Your task to perform on an android device: turn off improve location accuracy Image 0: 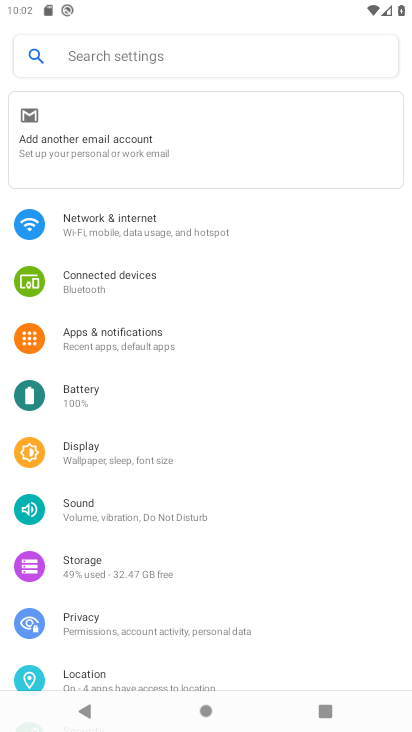
Step 0: click (83, 678)
Your task to perform on an android device: turn off improve location accuracy Image 1: 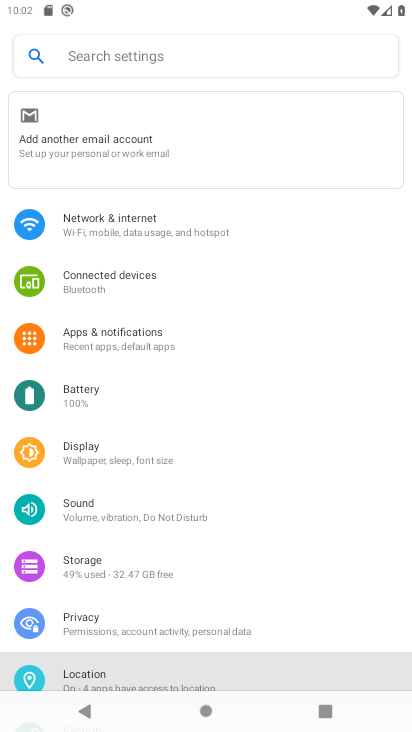
Step 1: drag from (92, 668) to (148, 204)
Your task to perform on an android device: turn off improve location accuracy Image 2: 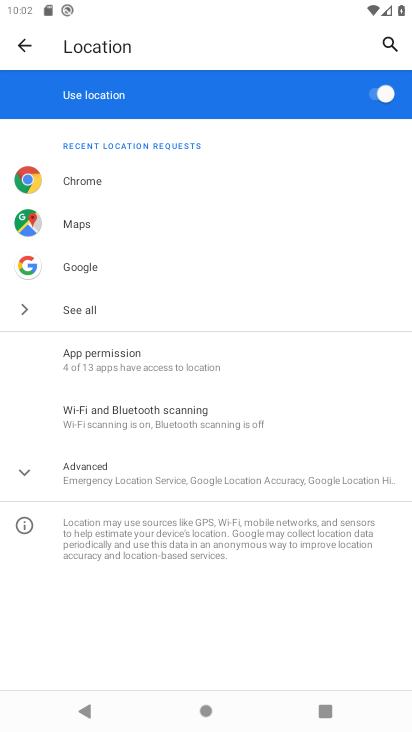
Step 2: click (96, 469)
Your task to perform on an android device: turn off improve location accuracy Image 3: 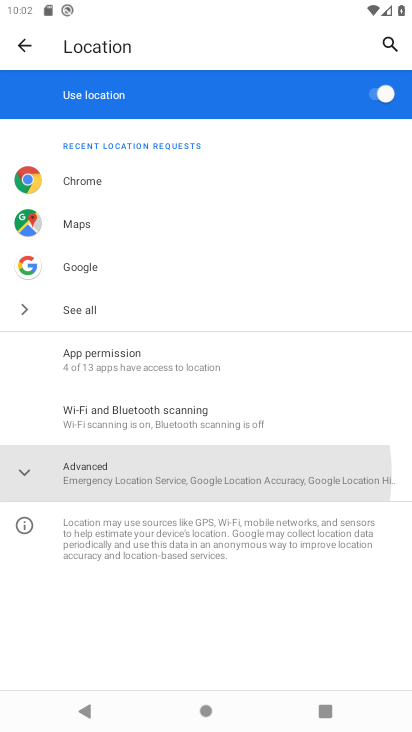
Step 3: click (96, 469)
Your task to perform on an android device: turn off improve location accuracy Image 4: 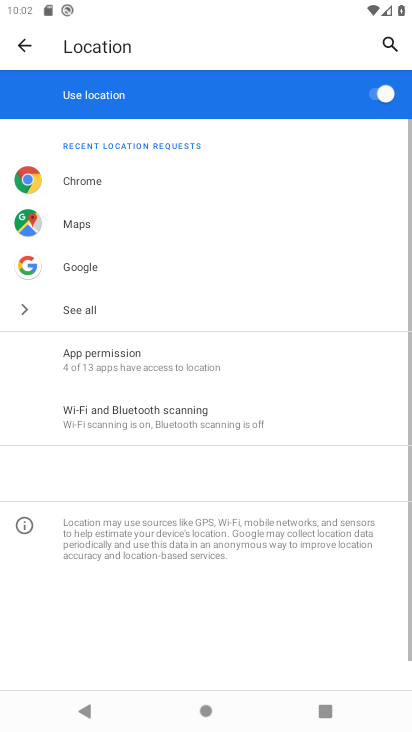
Step 4: click (96, 469)
Your task to perform on an android device: turn off improve location accuracy Image 5: 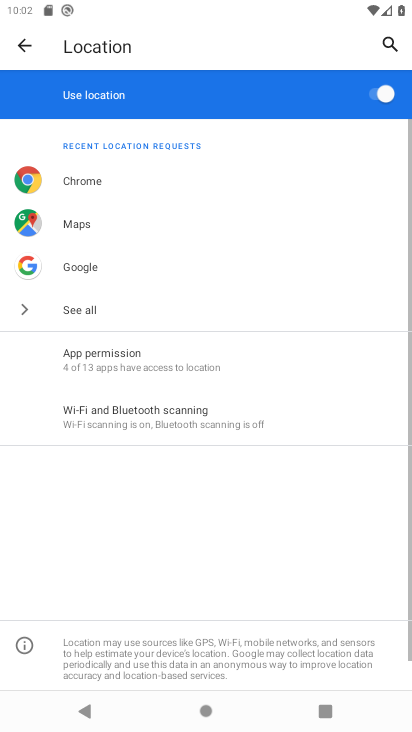
Step 5: click (96, 469)
Your task to perform on an android device: turn off improve location accuracy Image 6: 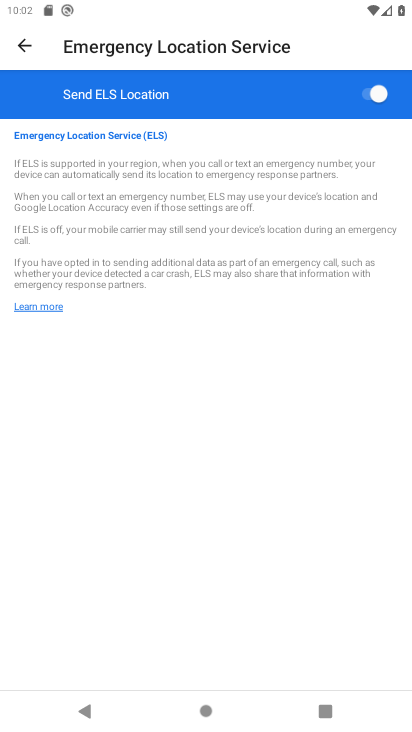
Step 6: click (29, 31)
Your task to perform on an android device: turn off improve location accuracy Image 7: 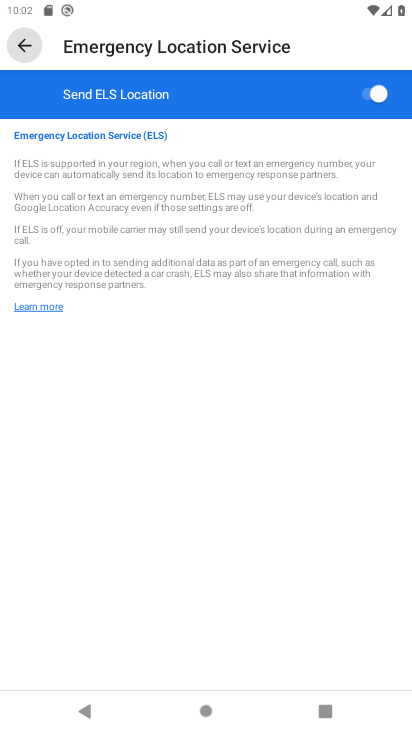
Step 7: click (28, 39)
Your task to perform on an android device: turn off improve location accuracy Image 8: 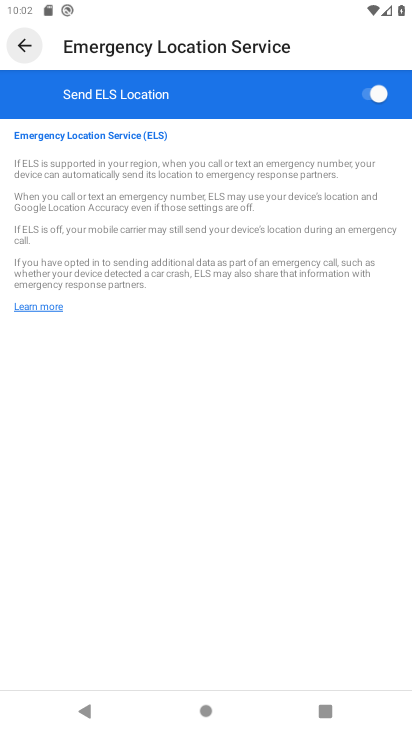
Step 8: click (28, 39)
Your task to perform on an android device: turn off improve location accuracy Image 9: 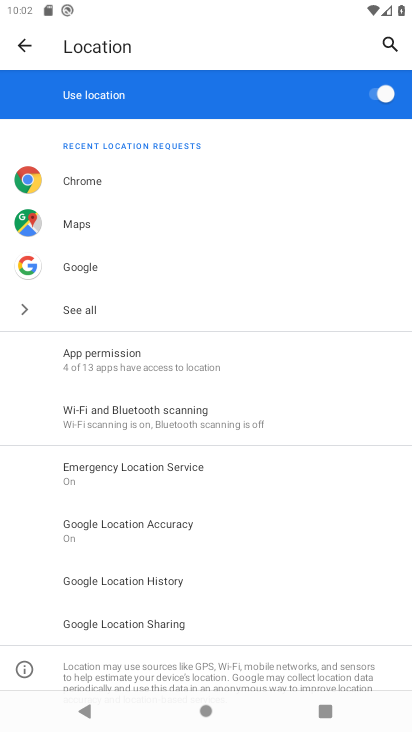
Step 9: click (124, 523)
Your task to perform on an android device: turn off improve location accuracy Image 10: 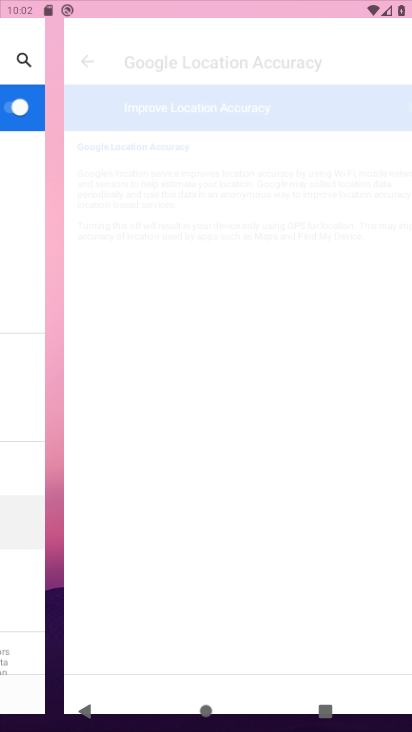
Step 10: drag from (99, 539) to (131, 519)
Your task to perform on an android device: turn off improve location accuracy Image 11: 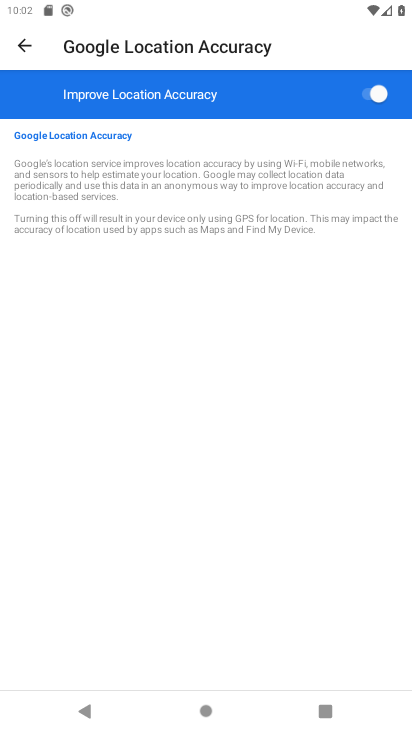
Step 11: click (379, 94)
Your task to perform on an android device: turn off improve location accuracy Image 12: 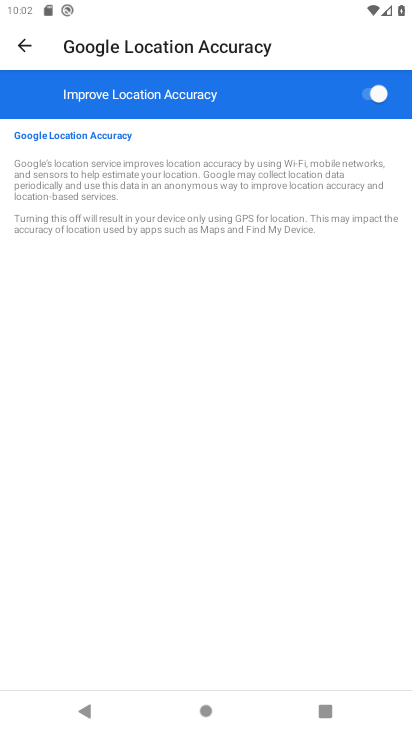
Step 12: click (380, 93)
Your task to perform on an android device: turn off improve location accuracy Image 13: 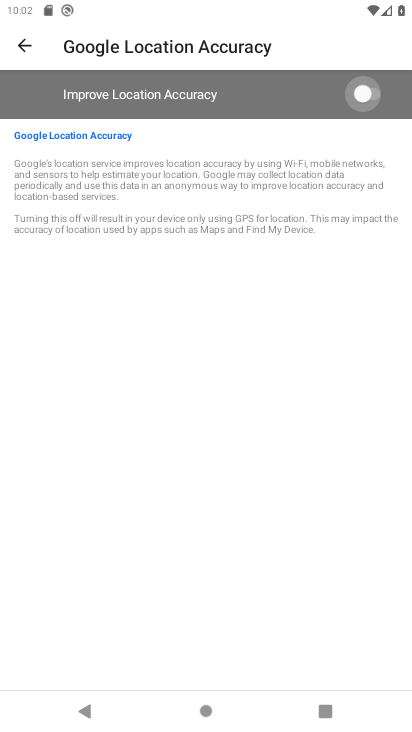
Step 13: click (382, 93)
Your task to perform on an android device: turn off improve location accuracy Image 14: 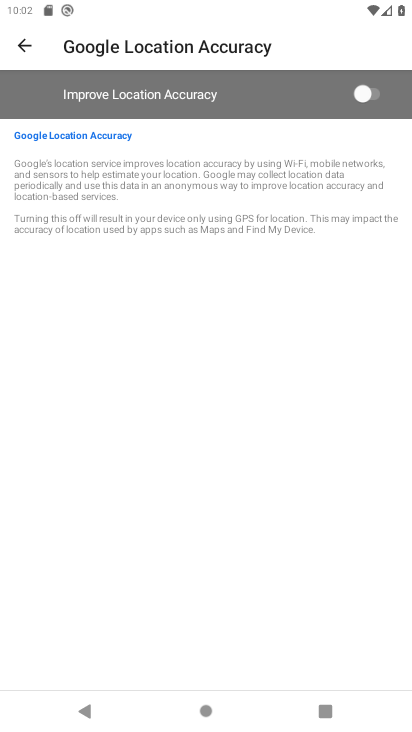
Step 14: task complete